Your task to perform on an android device: See recent photos Image 0: 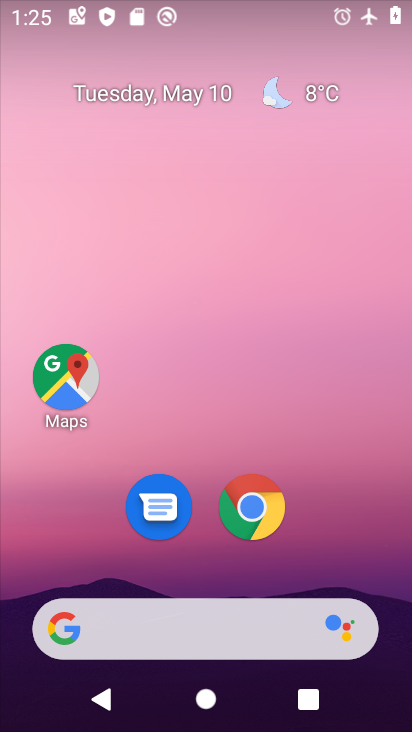
Step 0: drag from (183, 729) to (187, 177)
Your task to perform on an android device: See recent photos Image 1: 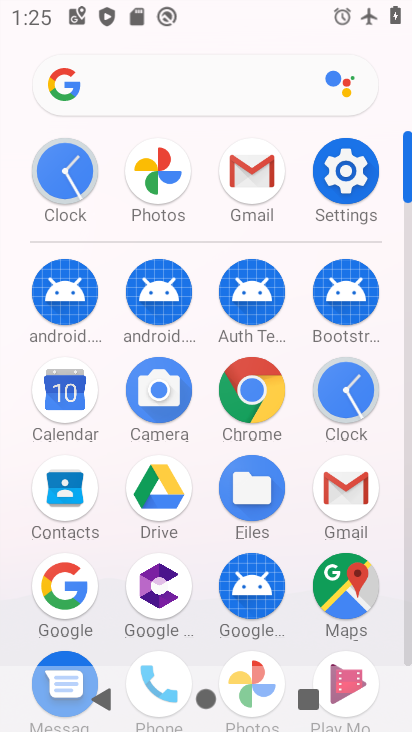
Step 1: click (164, 167)
Your task to perform on an android device: See recent photos Image 2: 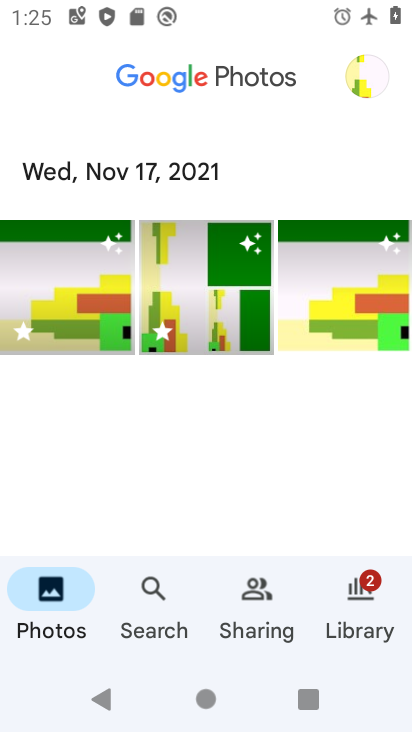
Step 2: click (73, 287)
Your task to perform on an android device: See recent photos Image 3: 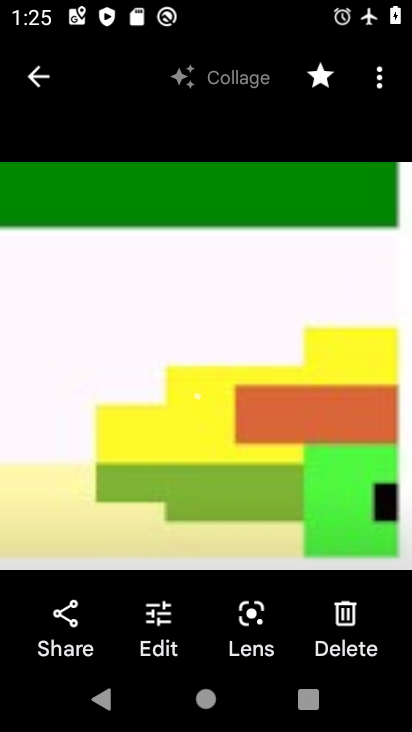
Step 3: task complete